Your task to perform on an android device: delete the emails in spam in the gmail app Image 0: 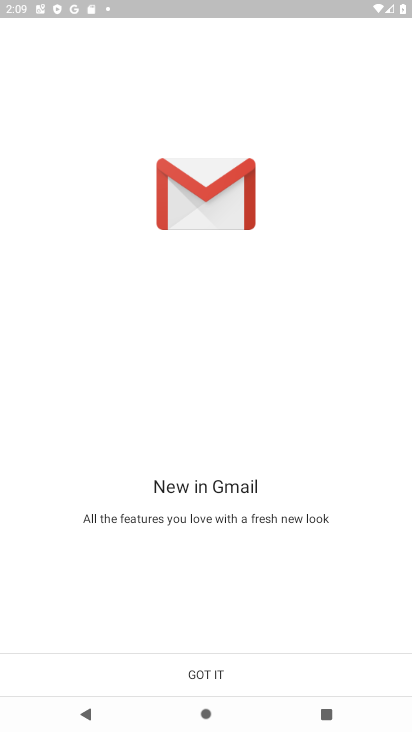
Step 0: click (236, 673)
Your task to perform on an android device: delete the emails in spam in the gmail app Image 1: 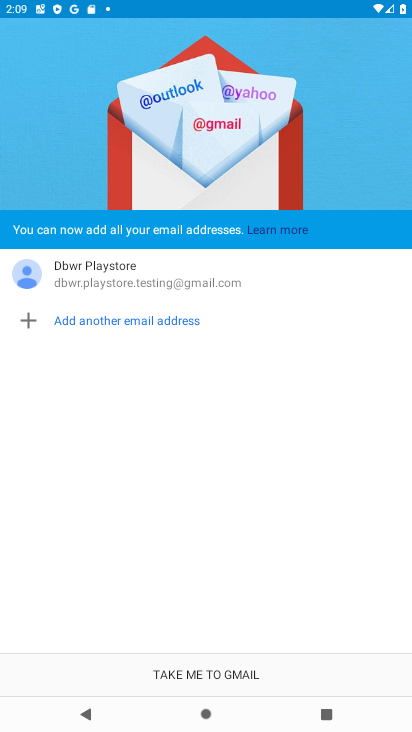
Step 1: click (236, 673)
Your task to perform on an android device: delete the emails in spam in the gmail app Image 2: 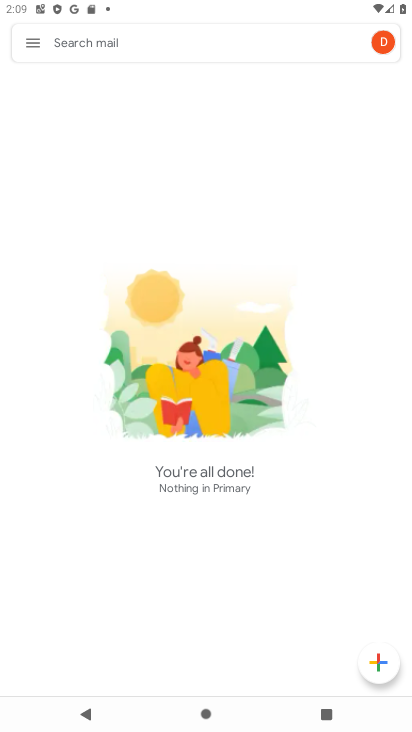
Step 2: click (30, 55)
Your task to perform on an android device: delete the emails in spam in the gmail app Image 3: 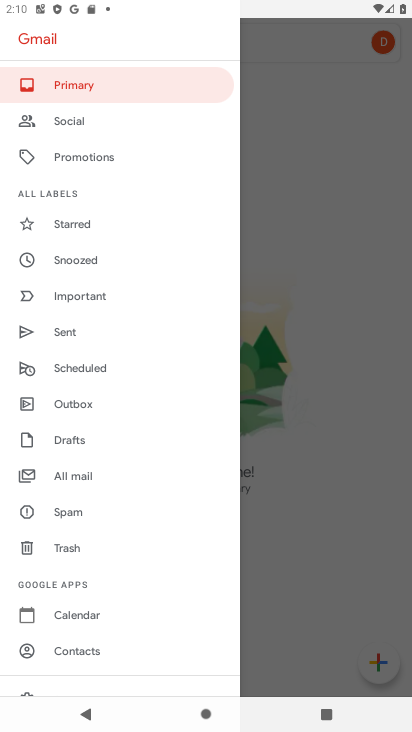
Step 3: drag from (115, 686) to (137, 368)
Your task to perform on an android device: delete the emails in spam in the gmail app Image 4: 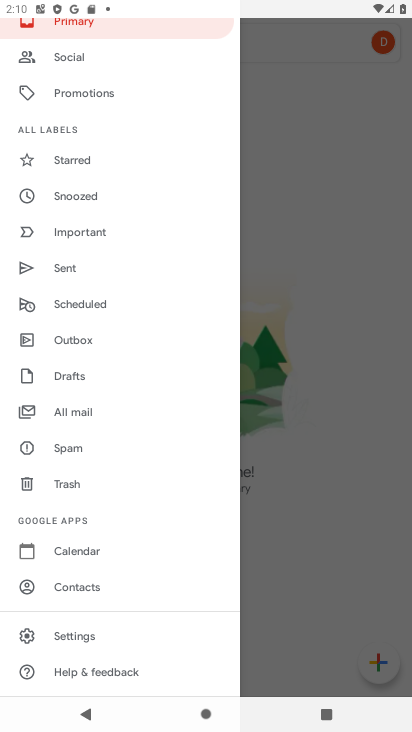
Step 4: click (104, 448)
Your task to perform on an android device: delete the emails in spam in the gmail app Image 5: 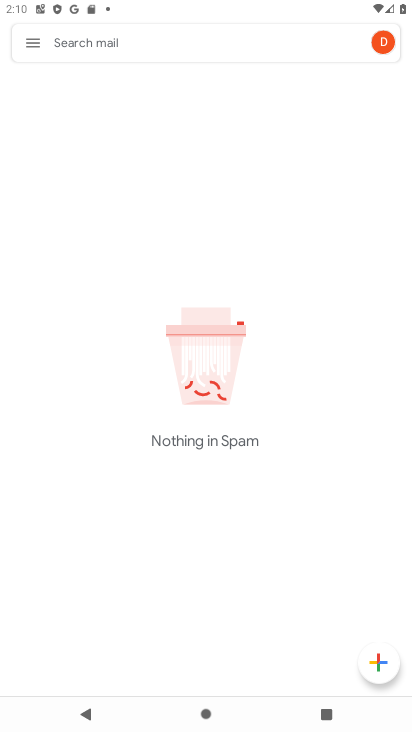
Step 5: task complete